Your task to perform on an android device: see creations saved in the google photos Image 0: 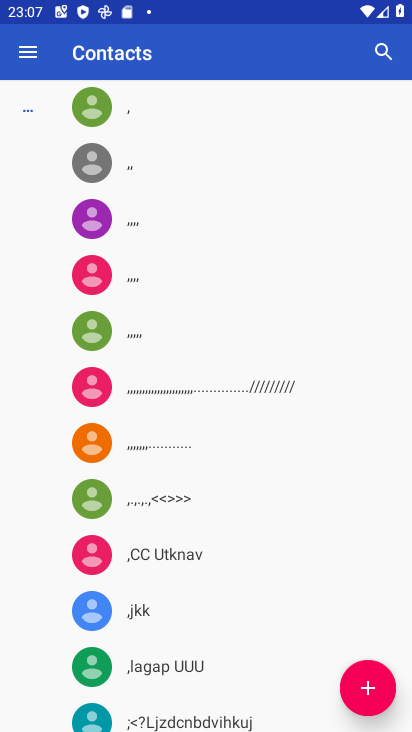
Step 0: press home button
Your task to perform on an android device: see creations saved in the google photos Image 1: 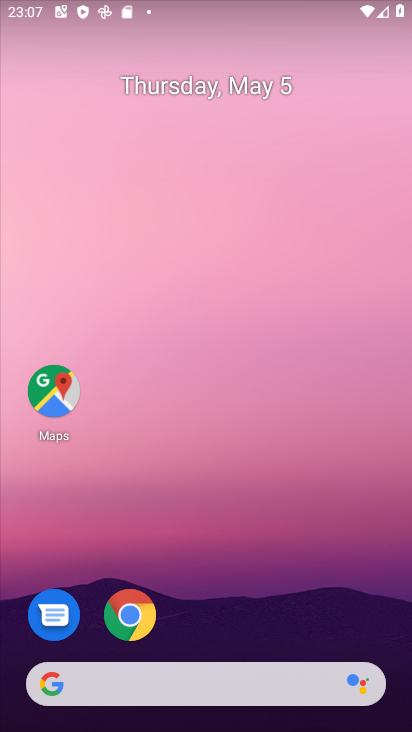
Step 1: drag from (247, 616) to (269, 108)
Your task to perform on an android device: see creations saved in the google photos Image 2: 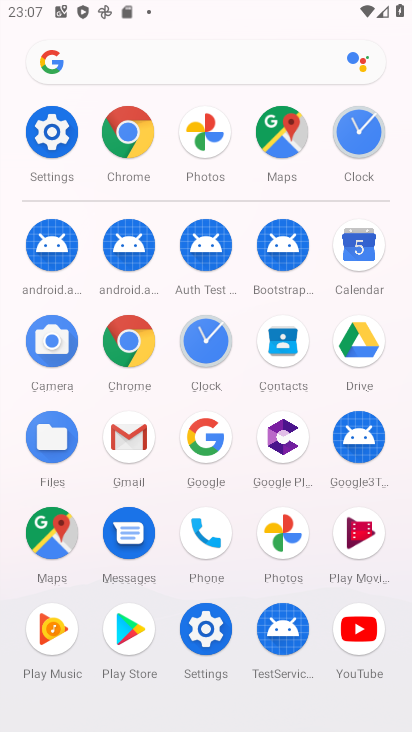
Step 2: click (199, 140)
Your task to perform on an android device: see creations saved in the google photos Image 3: 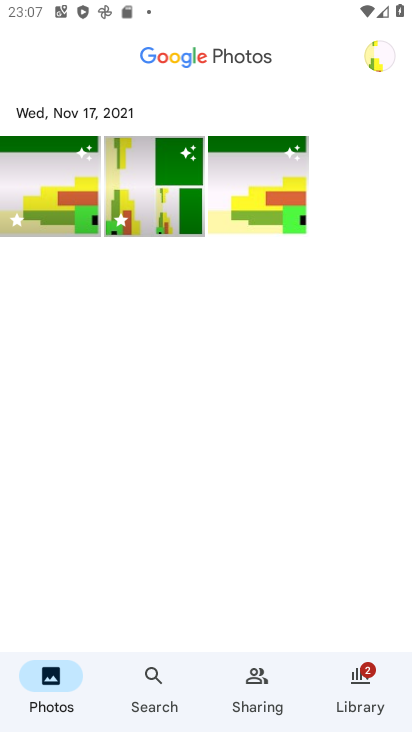
Step 3: click (192, 63)
Your task to perform on an android device: see creations saved in the google photos Image 4: 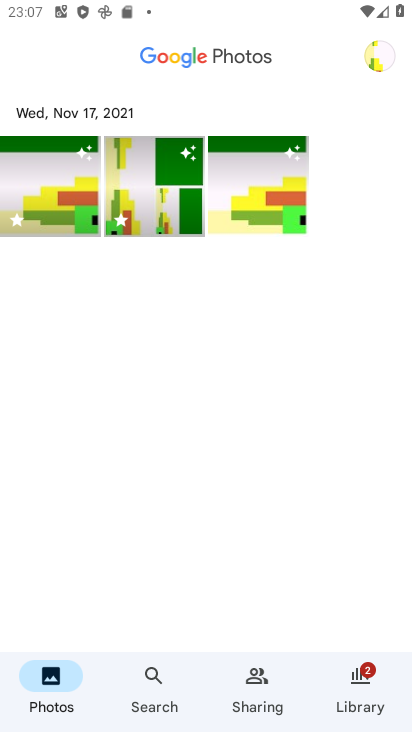
Step 4: click (152, 669)
Your task to perform on an android device: see creations saved in the google photos Image 5: 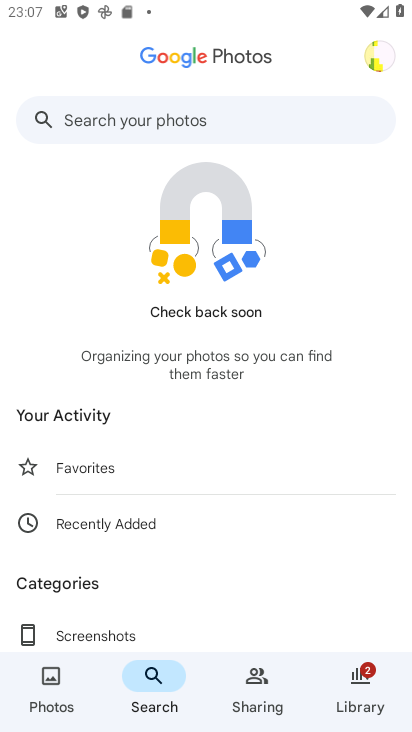
Step 5: drag from (165, 114) to (209, 560)
Your task to perform on an android device: see creations saved in the google photos Image 6: 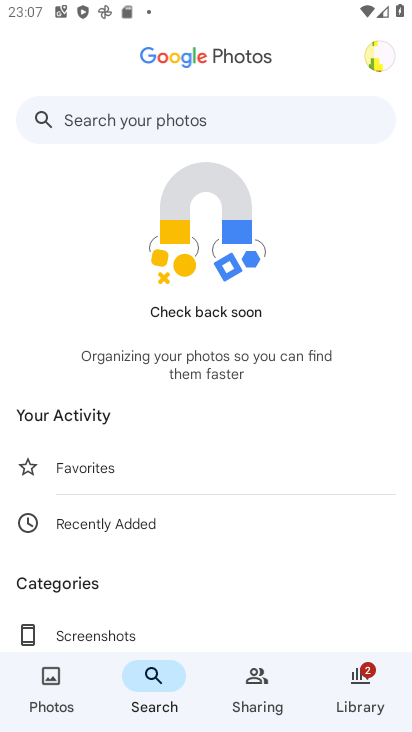
Step 6: drag from (209, 560) to (229, 105)
Your task to perform on an android device: see creations saved in the google photos Image 7: 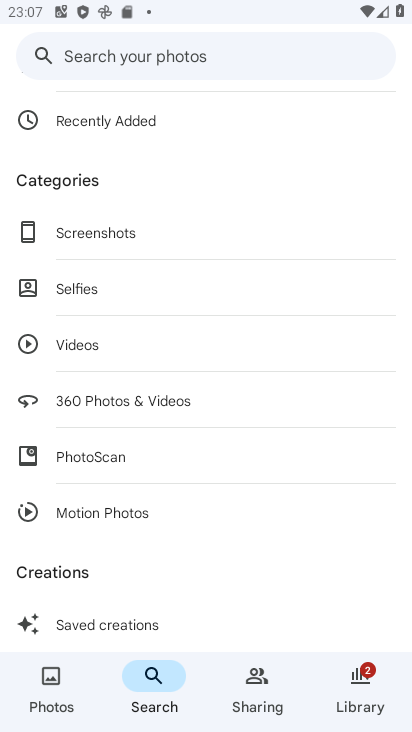
Step 7: drag from (122, 526) to (149, 339)
Your task to perform on an android device: see creations saved in the google photos Image 8: 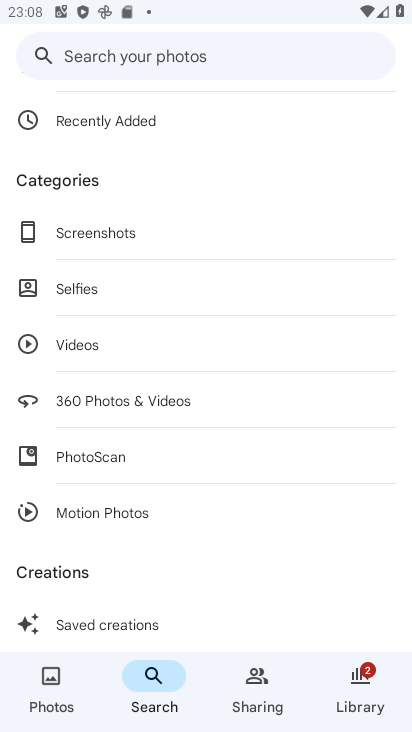
Step 8: click (106, 628)
Your task to perform on an android device: see creations saved in the google photos Image 9: 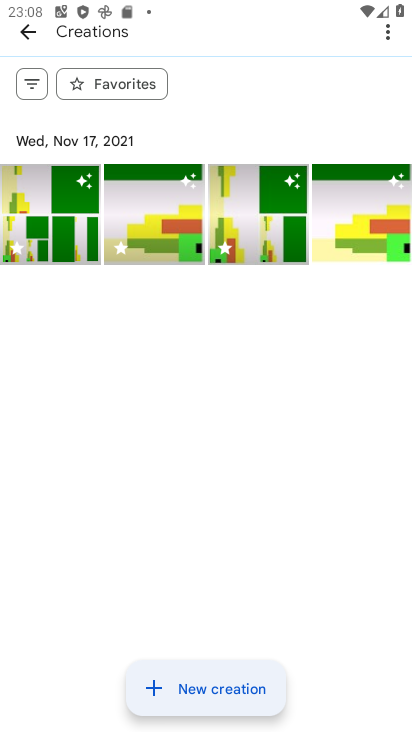
Step 9: task complete